Your task to perform on an android device: What is the news today? Image 0: 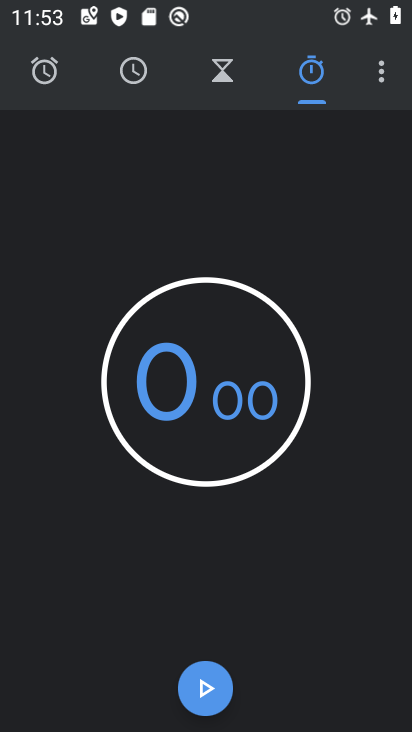
Step 0: press home button
Your task to perform on an android device: What is the news today? Image 1: 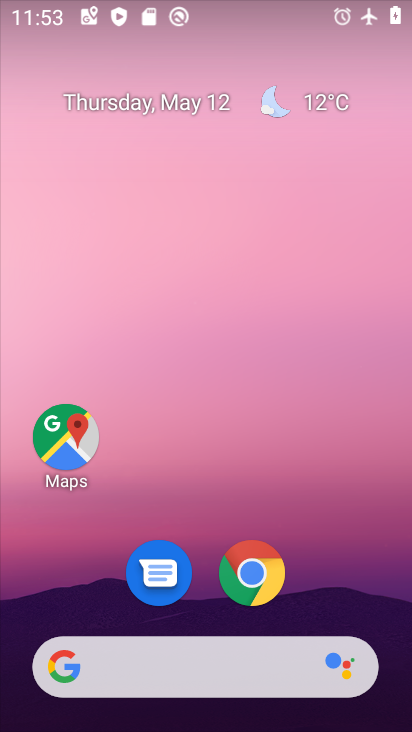
Step 1: click (198, 663)
Your task to perform on an android device: What is the news today? Image 2: 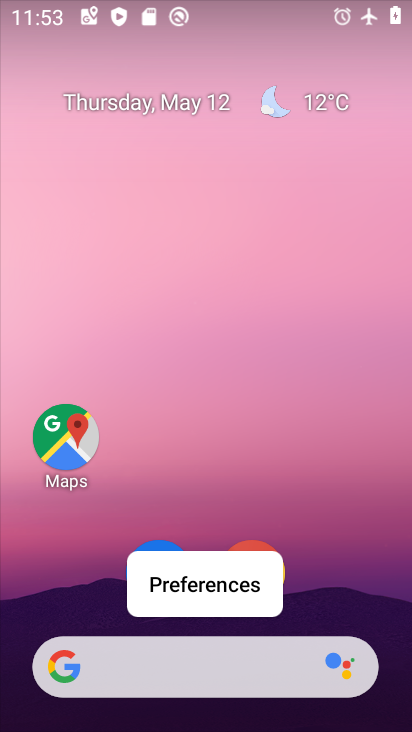
Step 2: click (198, 667)
Your task to perform on an android device: What is the news today? Image 3: 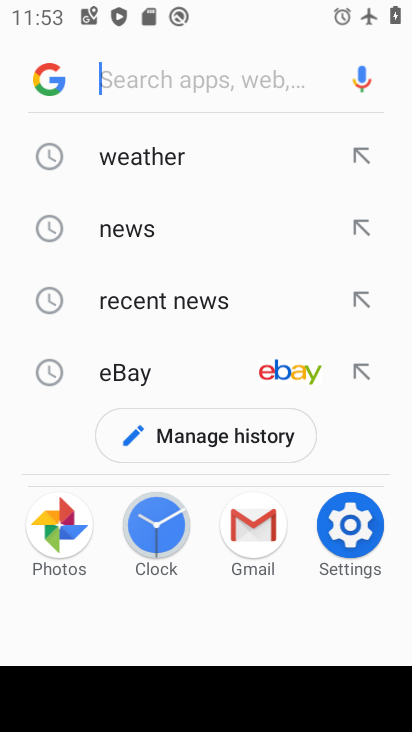
Step 3: type "news today "
Your task to perform on an android device: What is the news today? Image 4: 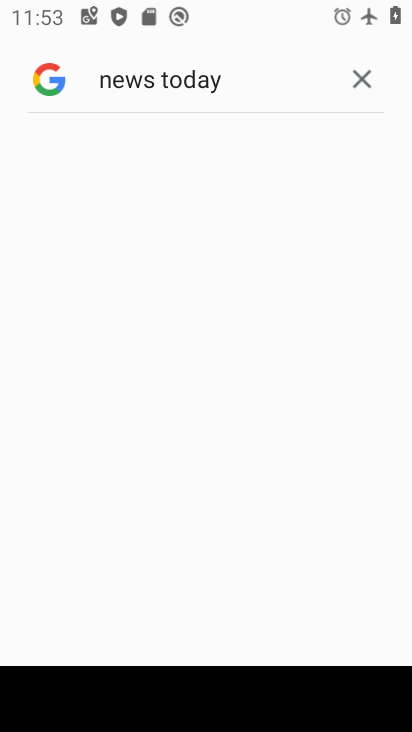
Step 4: task complete